Your task to perform on an android device: Show me productivity apps on the Play Store Image 0: 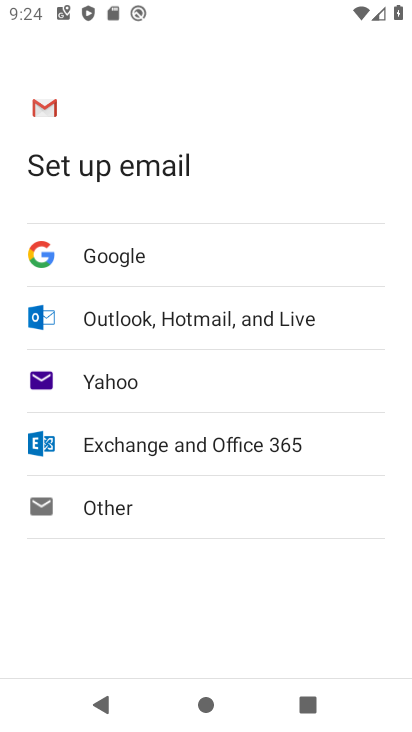
Step 0: press home button
Your task to perform on an android device: Show me productivity apps on the Play Store Image 1: 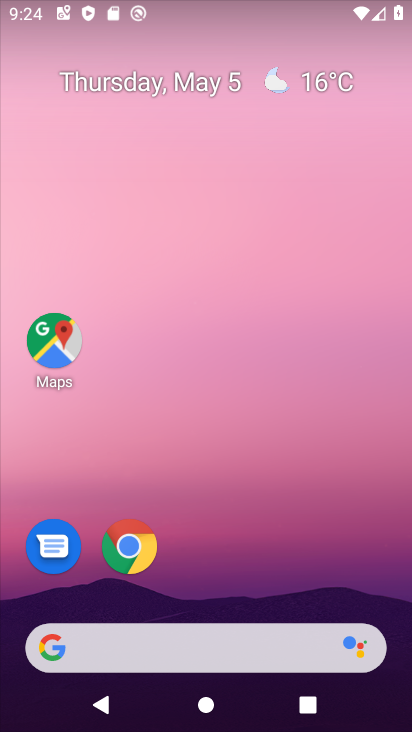
Step 1: drag from (225, 578) to (227, 17)
Your task to perform on an android device: Show me productivity apps on the Play Store Image 2: 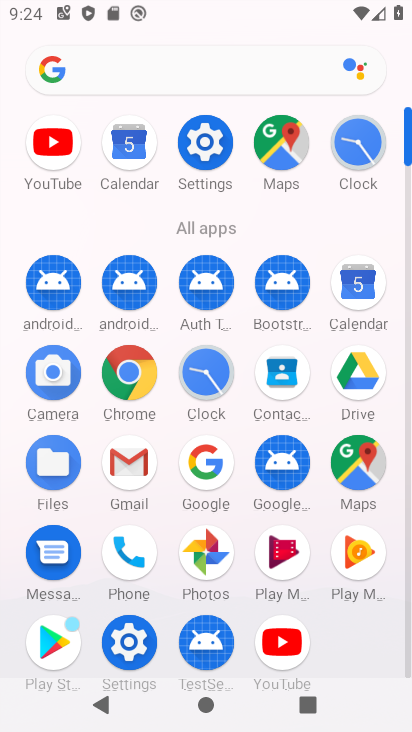
Step 2: click (49, 634)
Your task to perform on an android device: Show me productivity apps on the Play Store Image 3: 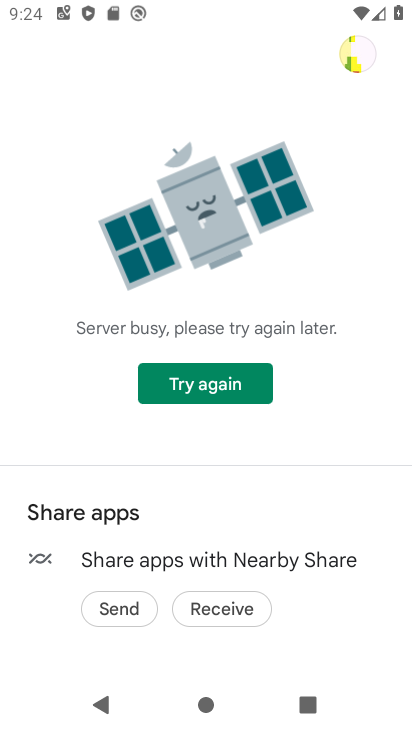
Step 3: click (208, 375)
Your task to perform on an android device: Show me productivity apps on the Play Store Image 4: 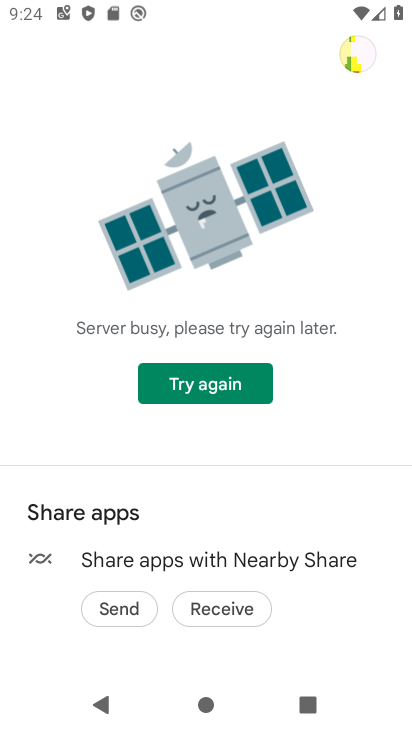
Step 4: click (209, 374)
Your task to perform on an android device: Show me productivity apps on the Play Store Image 5: 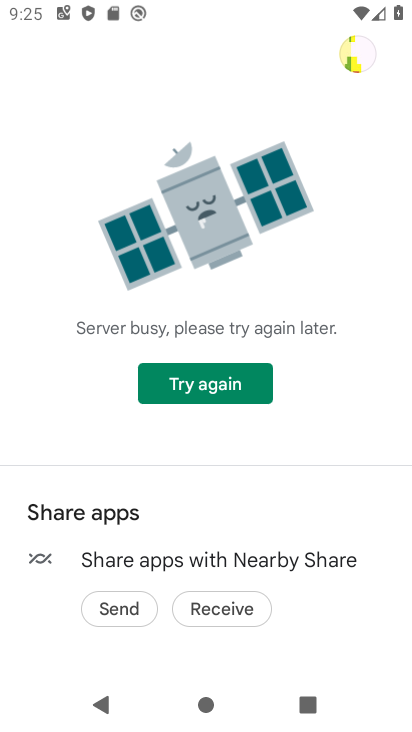
Step 5: click (221, 388)
Your task to perform on an android device: Show me productivity apps on the Play Store Image 6: 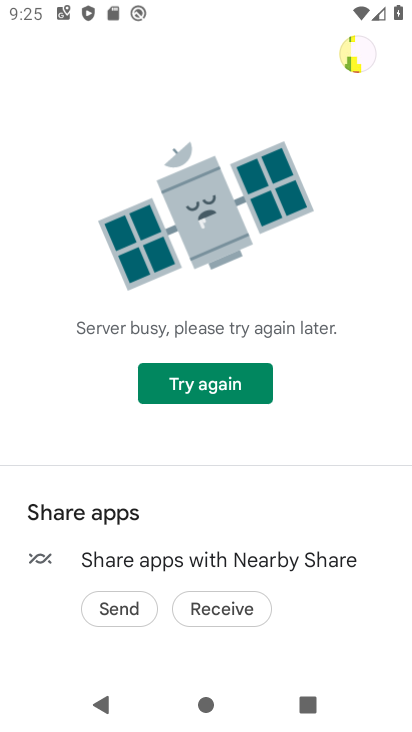
Step 6: click (221, 387)
Your task to perform on an android device: Show me productivity apps on the Play Store Image 7: 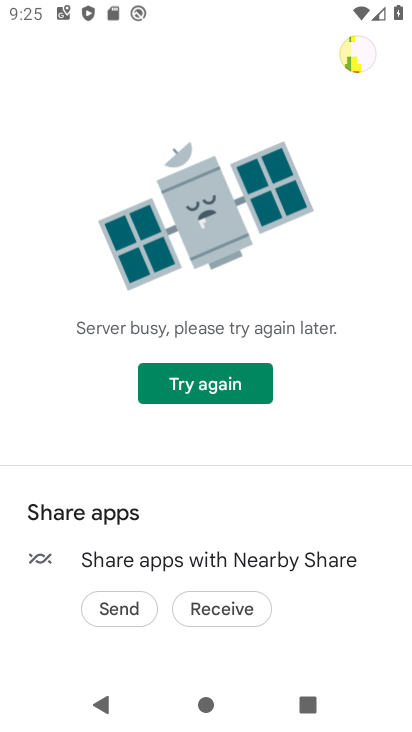
Step 7: task complete